Your task to perform on an android device: Go to wifi settings Image 0: 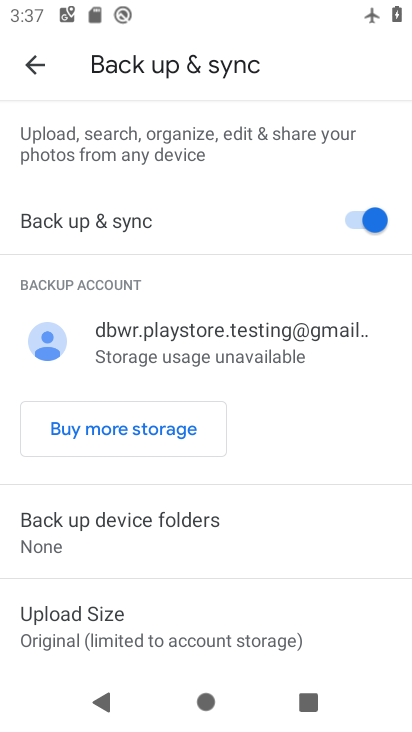
Step 0: press home button
Your task to perform on an android device: Go to wifi settings Image 1: 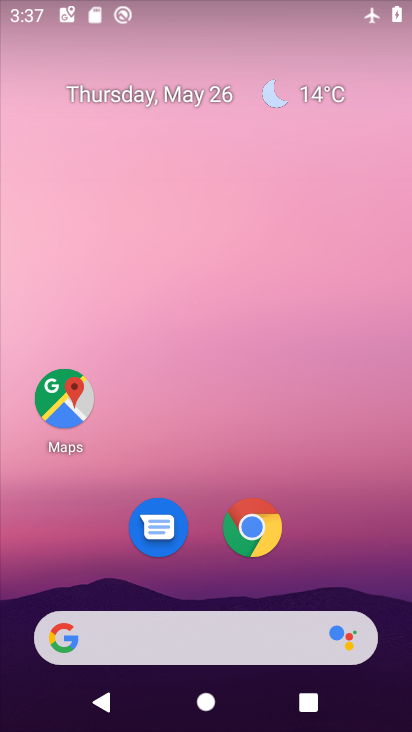
Step 1: drag from (367, 554) to (262, 200)
Your task to perform on an android device: Go to wifi settings Image 2: 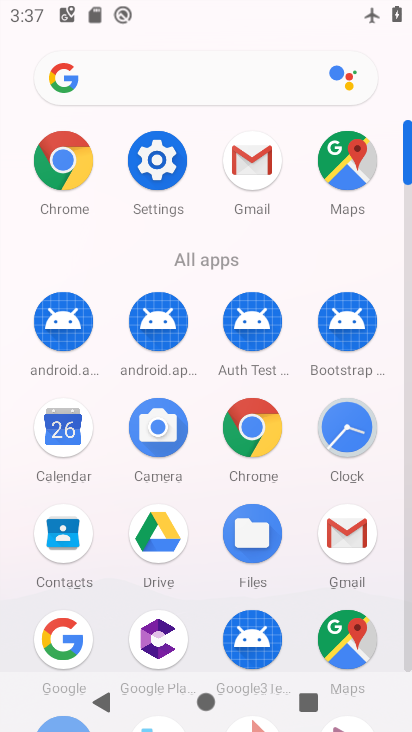
Step 2: click (163, 167)
Your task to perform on an android device: Go to wifi settings Image 3: 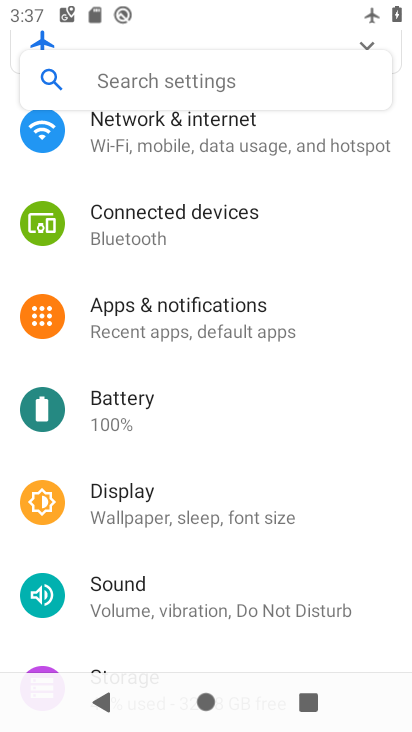
Step 3: click (173, 145)
Your task to perform on an android device: Go to wifi settings Image 4: 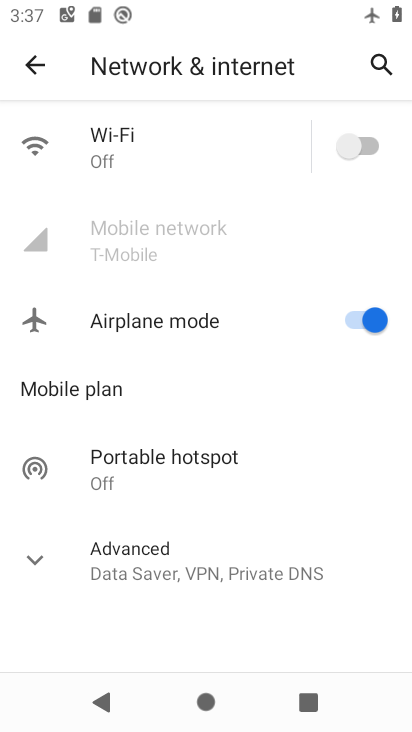
Step 4: click (152, 144)
Your task to perform on an android device: Go to wifi settings Image 5: 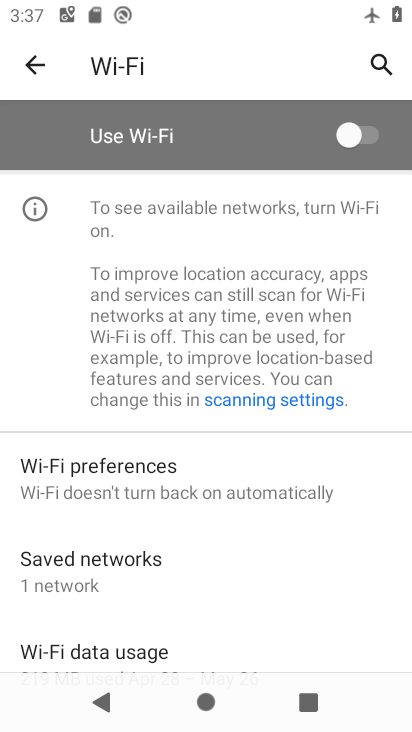
Step 5: task complete